Your task to perform on an android device: Add "dell alienware" to the cart on bestbuy Image 0: 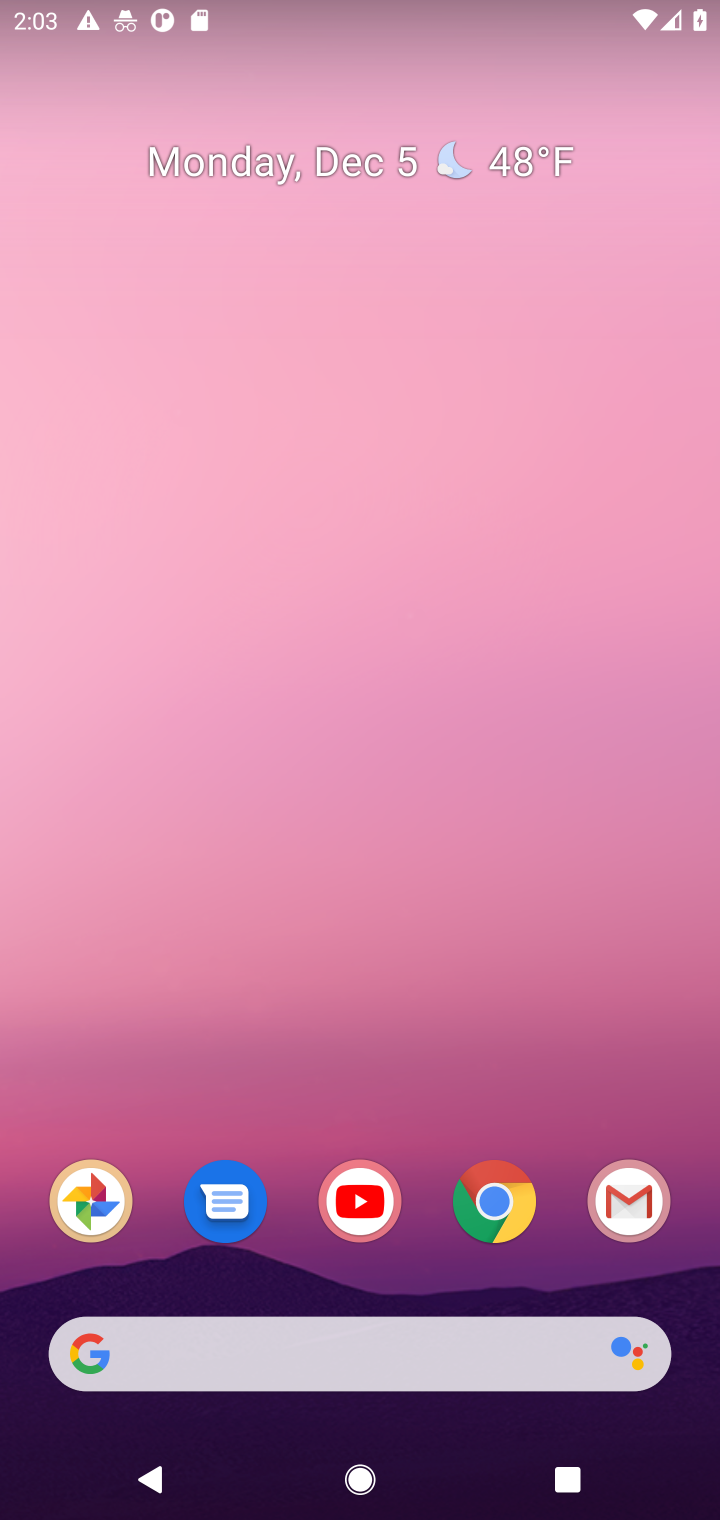
Step 0: click (475, 1204)
Your task to perform on an android device: Add "dell alienware" to the cart on bestbuy Image 1: 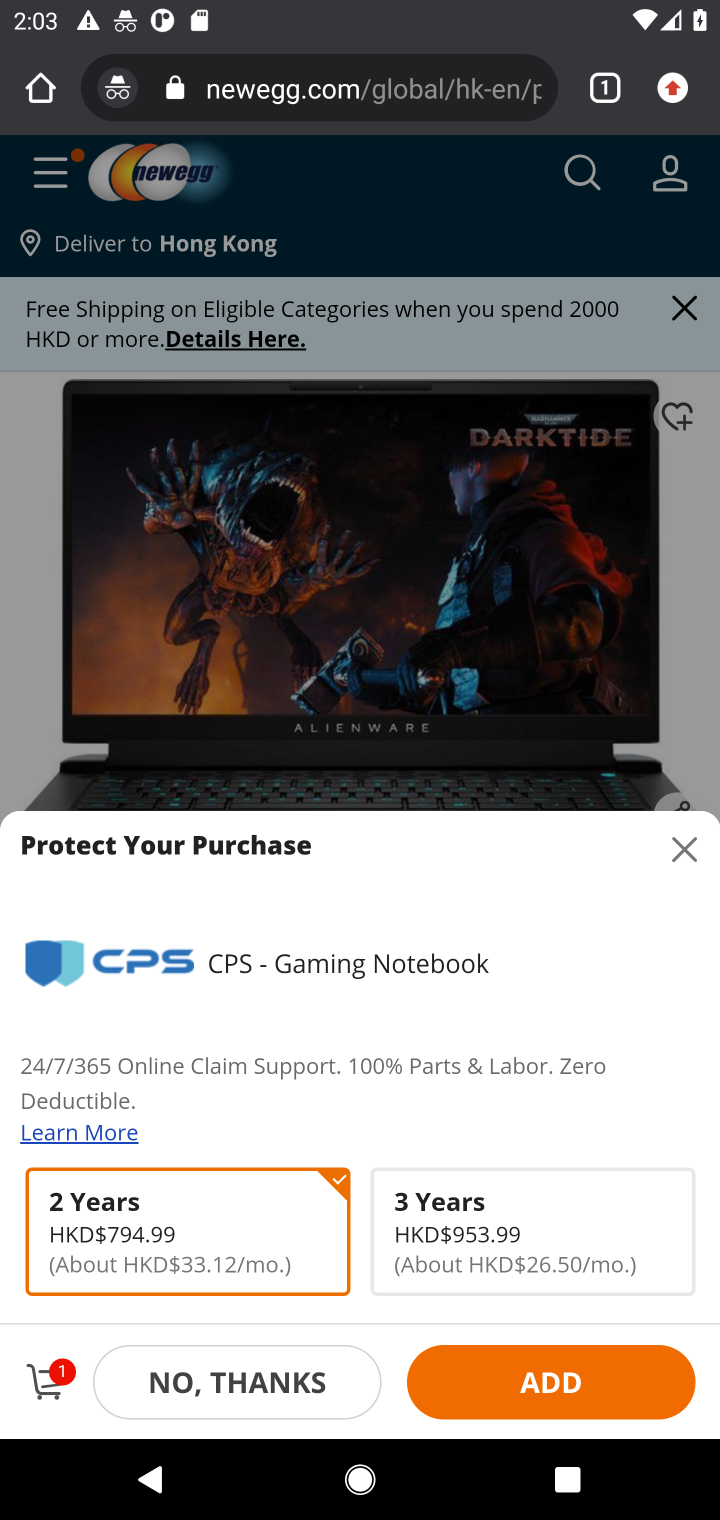
Step 1: click (211, 89)
Your task to perform on an android device: Add "dell alienware" to the cart on bestbuy Image 2: 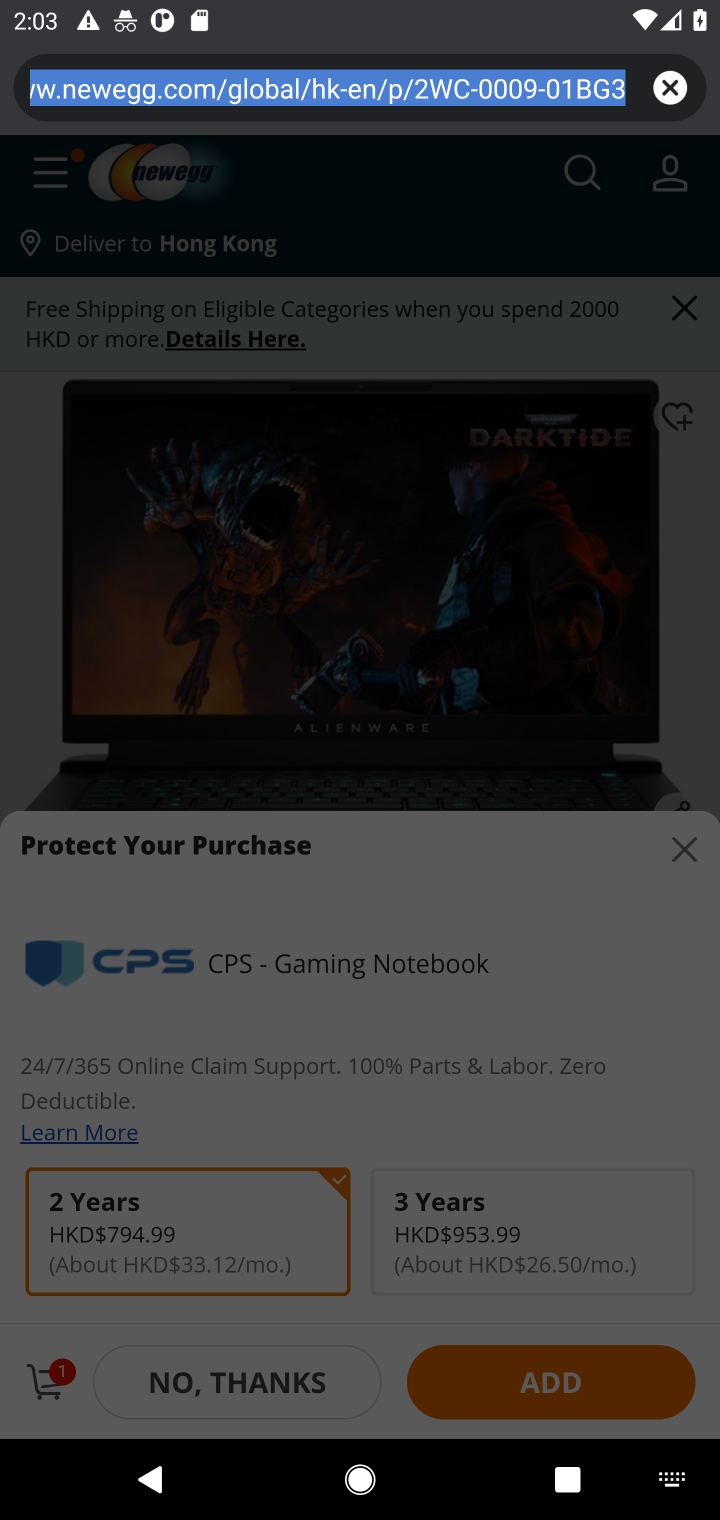
Step 2: click (678, 95)
Your task to perform on an android device: Add "dell alienware" to the cart on bestbuy Image 3: 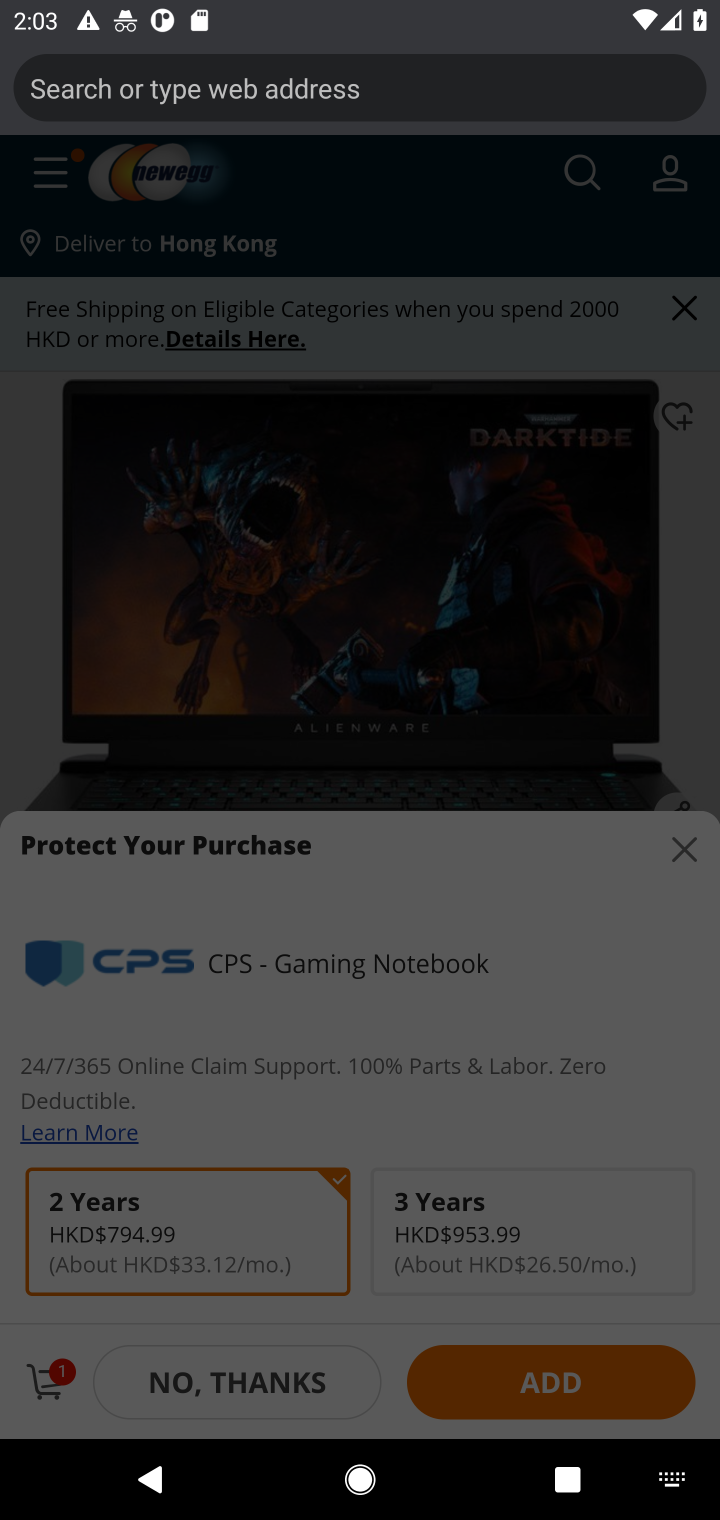
Step 3: type "bestbuy"
Your task to perform on an android device: Add "dell alienware" to the cart on bestbuy Image 4: 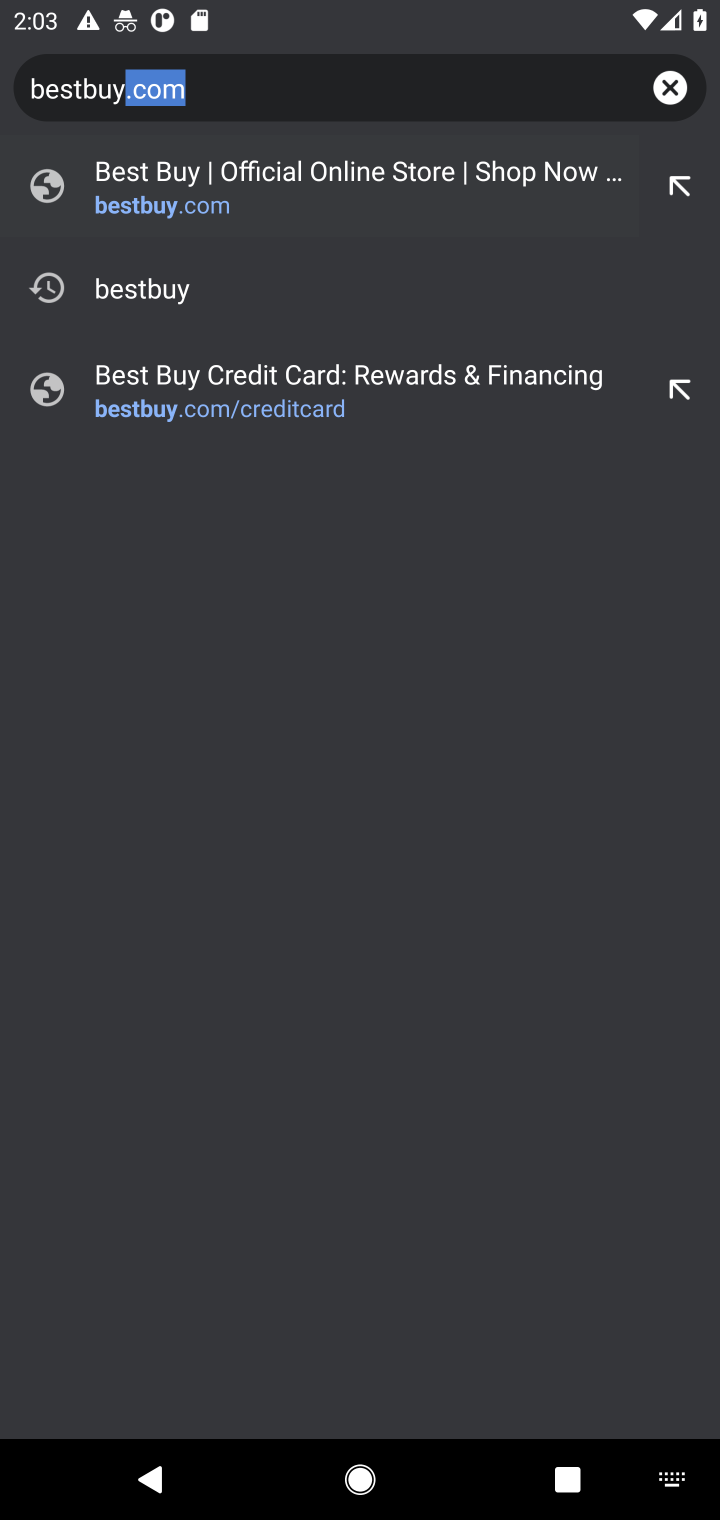
Step 4: click (196, 406)
Your task to perform on an android device: Add "dell alienware" to the cart on bestbuy Image 5: 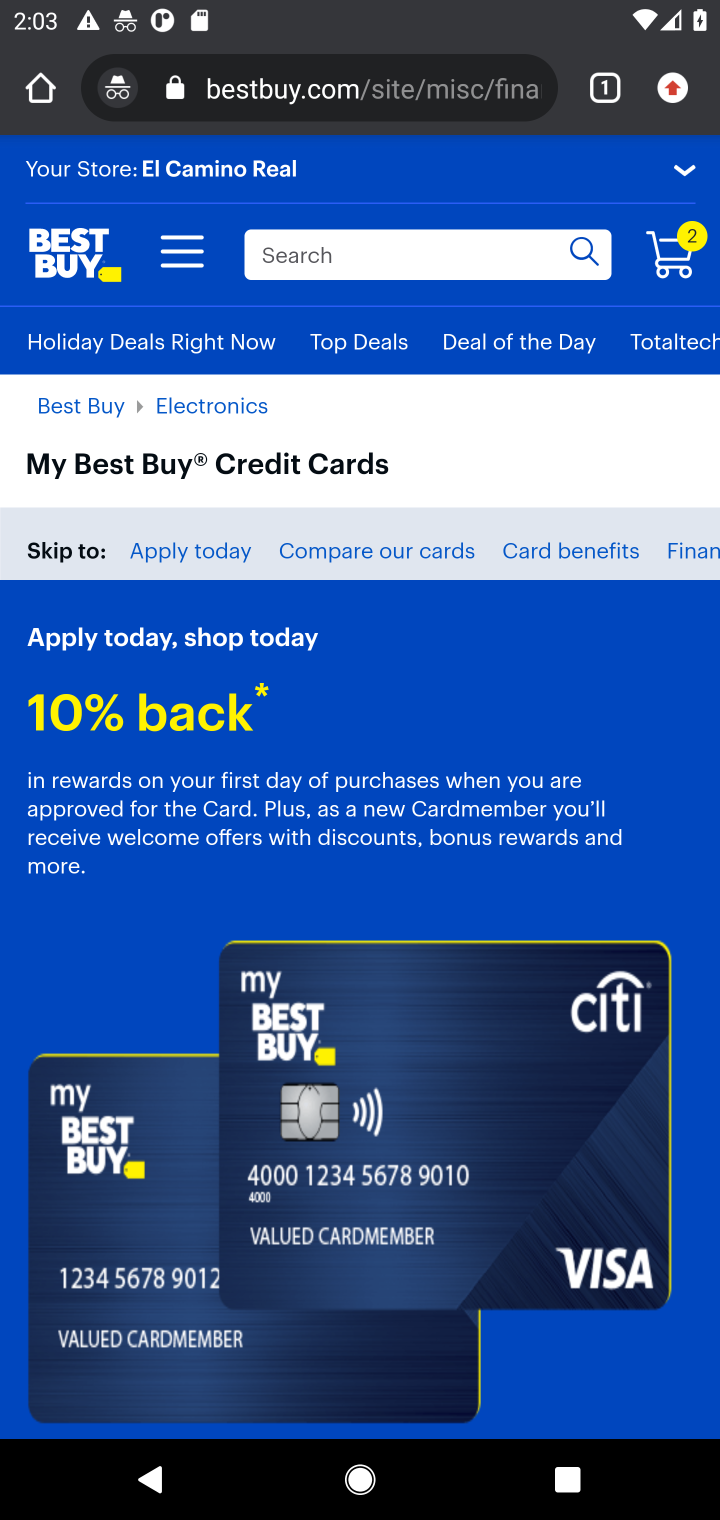
Step 5: click (435, 248)
Your task to perform on an android device: Add "dell alienware" to the cart on bestbuy Image 6: 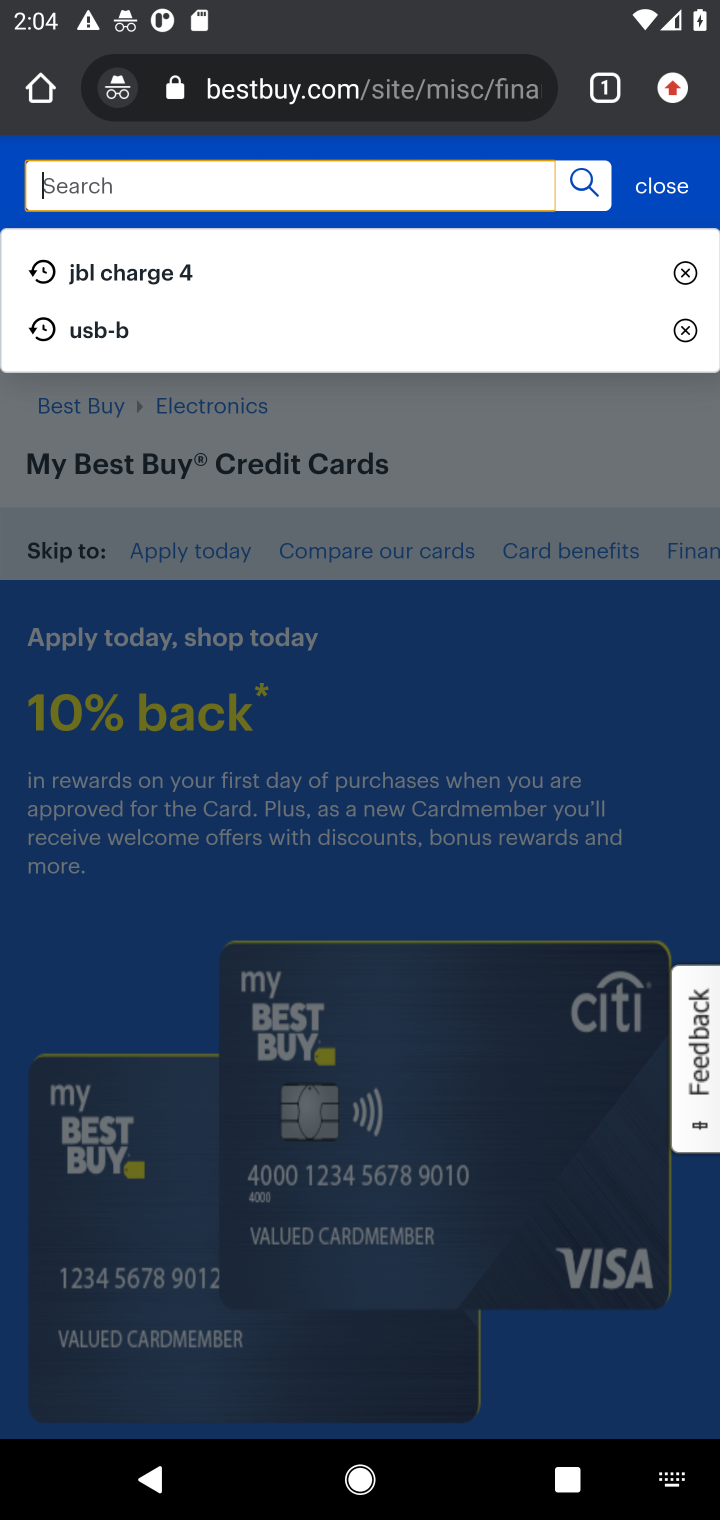
Step 6: type "dell alienware"
Your task to perform on an android device: Add "dell alienware" to the cart on bestbuy Image 7: 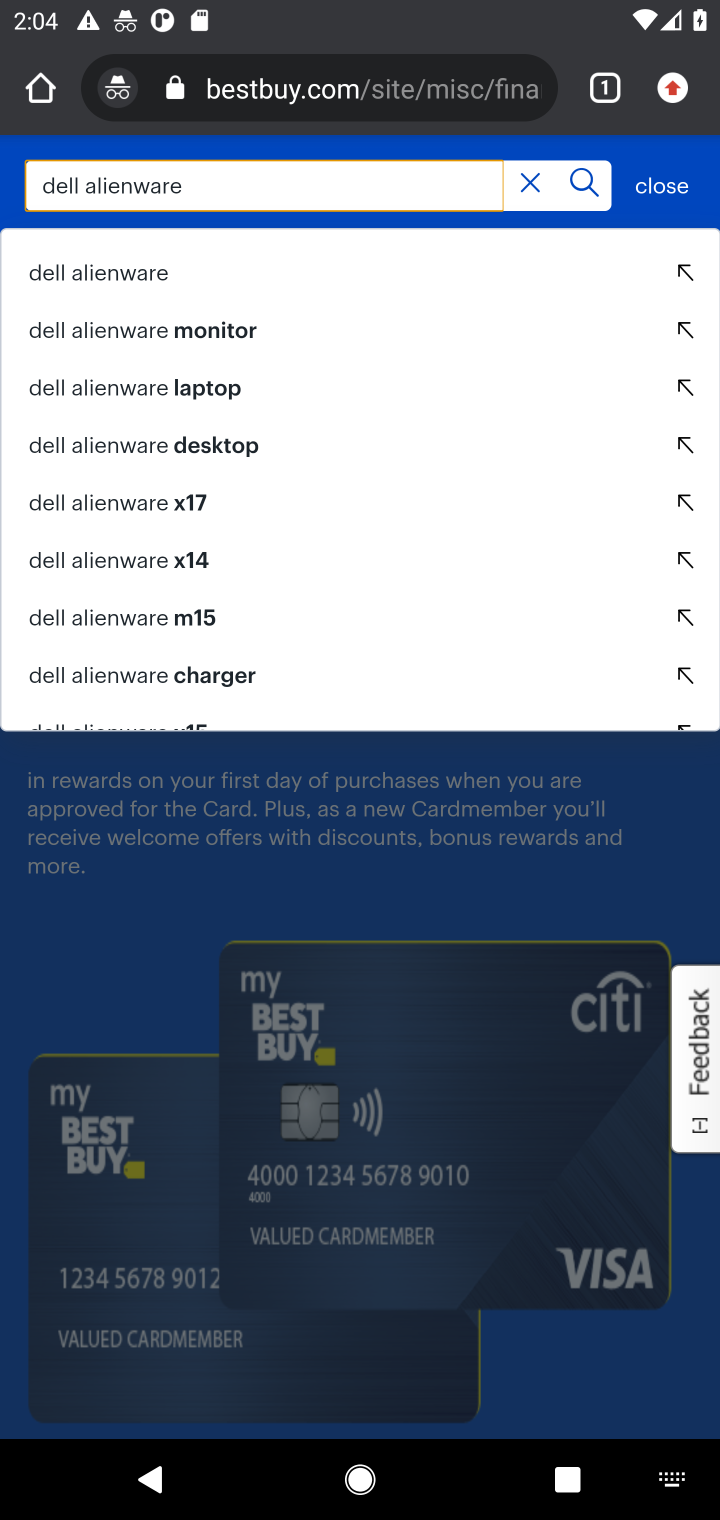
Step 7: click (89, 263)
Your task to perform on an android device: Add "dell alienware" to the cart on bestbuy Image 8: 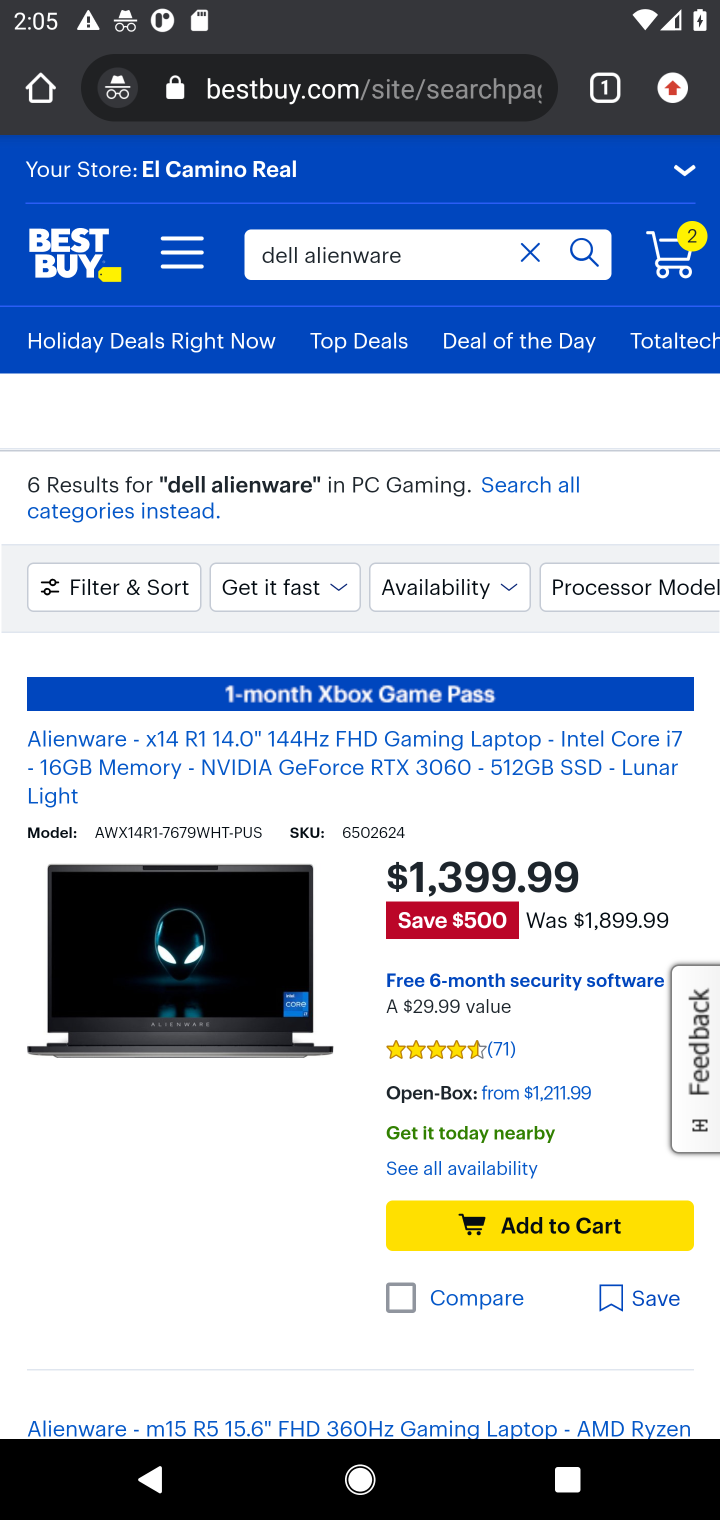
Step 8: click (569, 1226)
Your task to perform on an android device: Add "dell alienware" to the cart on bestbuy Image 9: 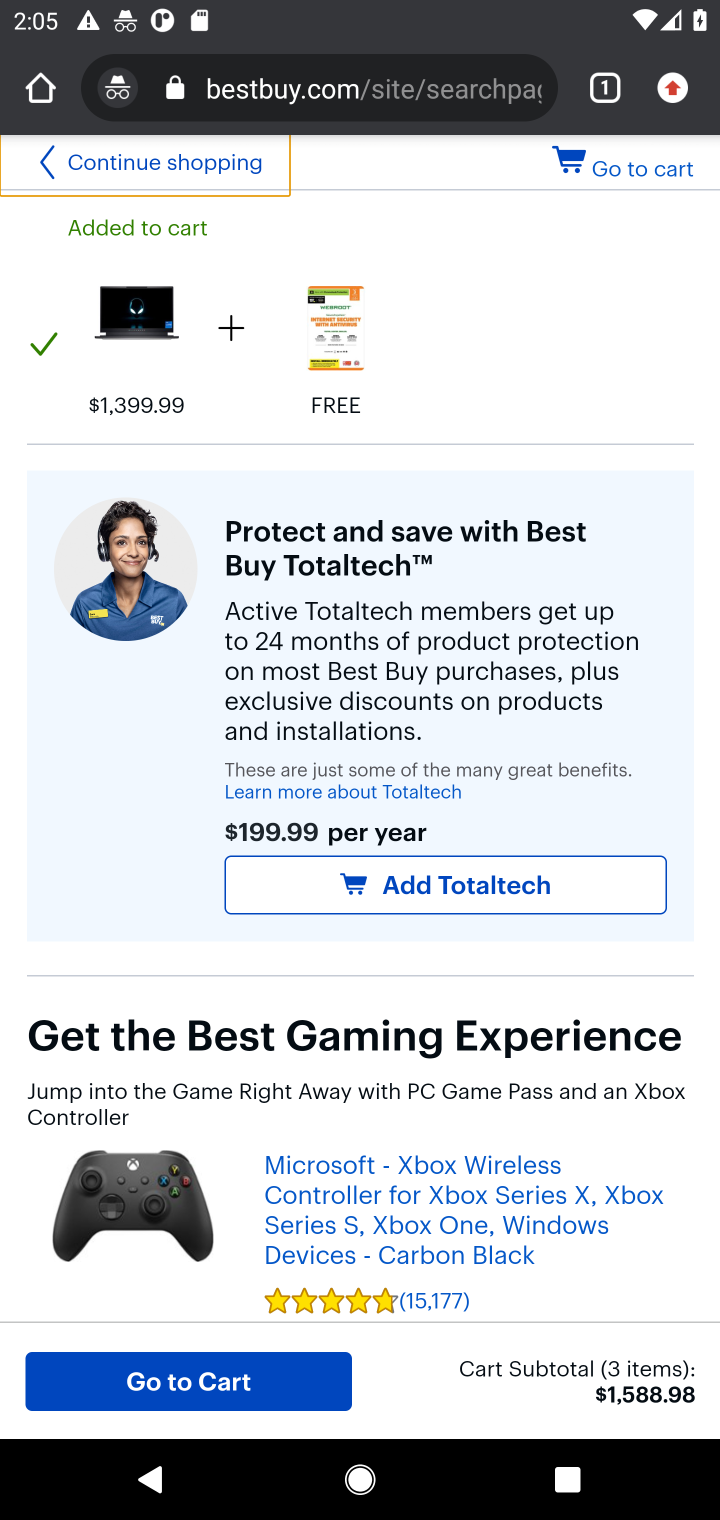
Step 9: task complete